Your task to perform on an android device: Is it going to rain today? Image 0: 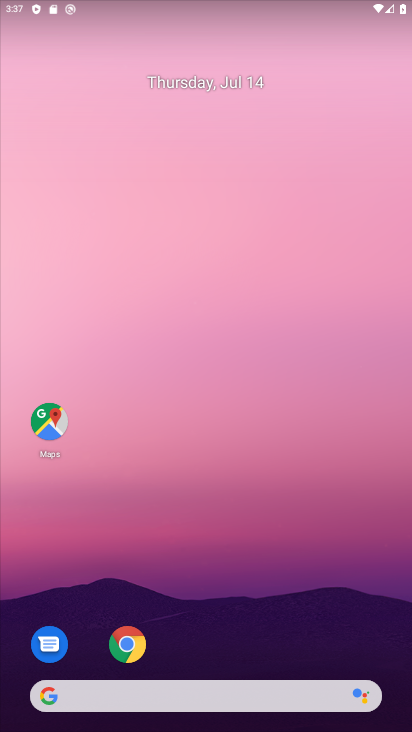
Step 0: drag from (254, 668) to (339, 112)
Your task to perform on an android device: Is it going to rain today? Image 1: 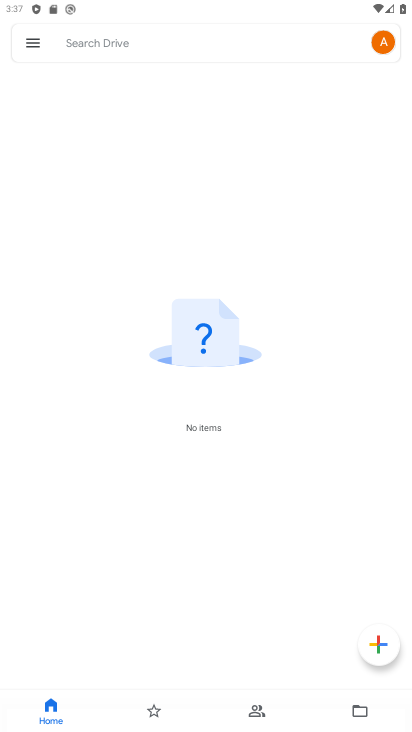
Step 1: press home button
Your task to perform on an android device: Is it going to rain today? Image 2: 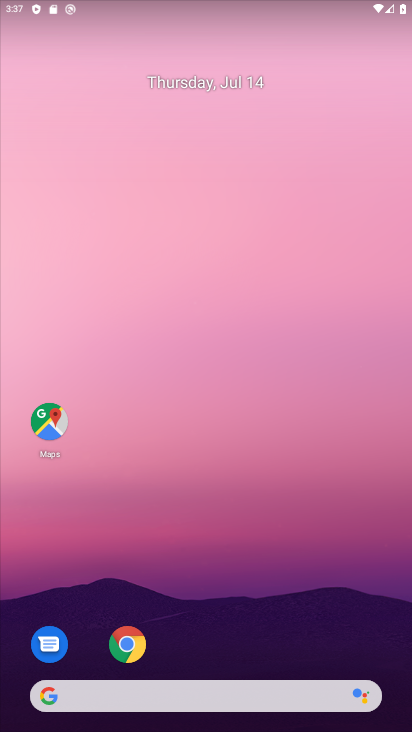
Step 2: drag from (310, 591) to (312, 94)
Your task to perform on an android device: Is it going to rain today? Image 3: 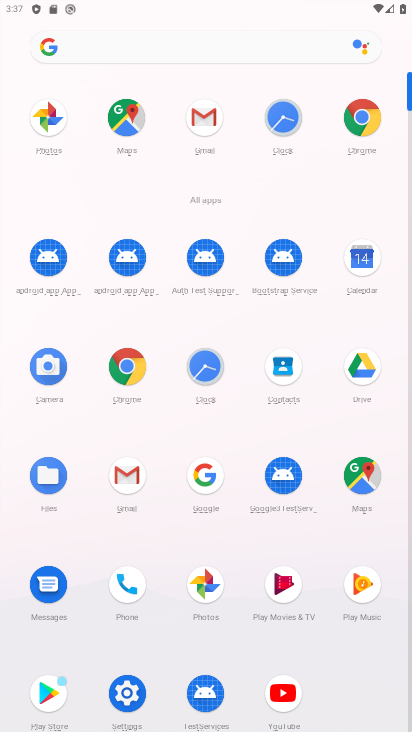
Step 3: click (122, 363)
Your task to perform on an android device: Is it going to rain today? Image 4: 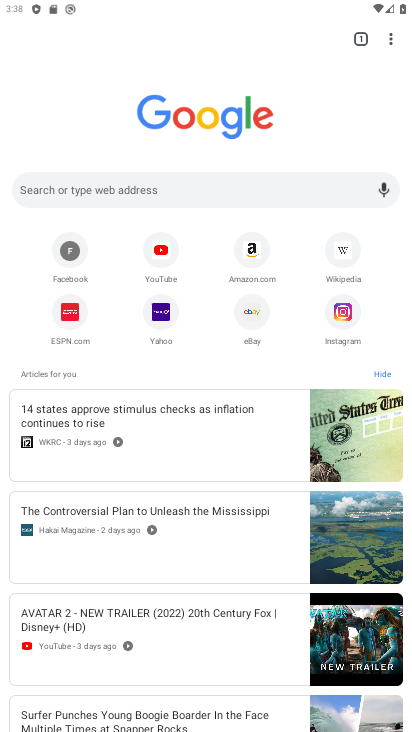
Step 4: click (193, 190)
Your task to perform on an android device: Is it going to rain today? Image 5: 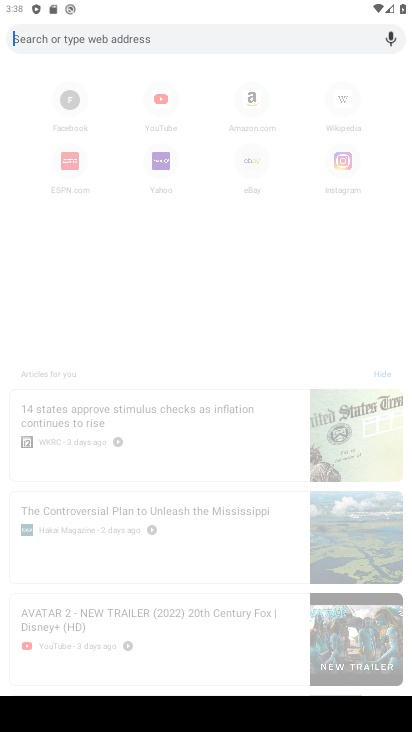
Step 5: type "Is it going to rain today?"
Your task to perform on an android device: Is it going to rain today? Image 6: 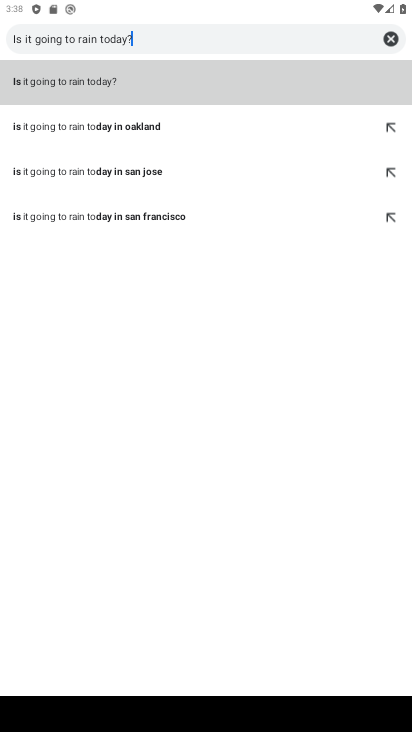
Step 6: click (86, 79)
Your task to perform on an android device: Is it going to rain today? Image 7: 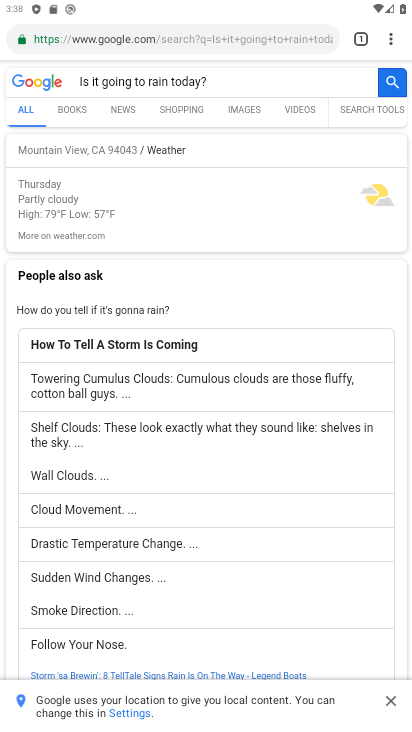
Step 7: task complete